Your task to perform on an android device: all mails in gmail Image 0: 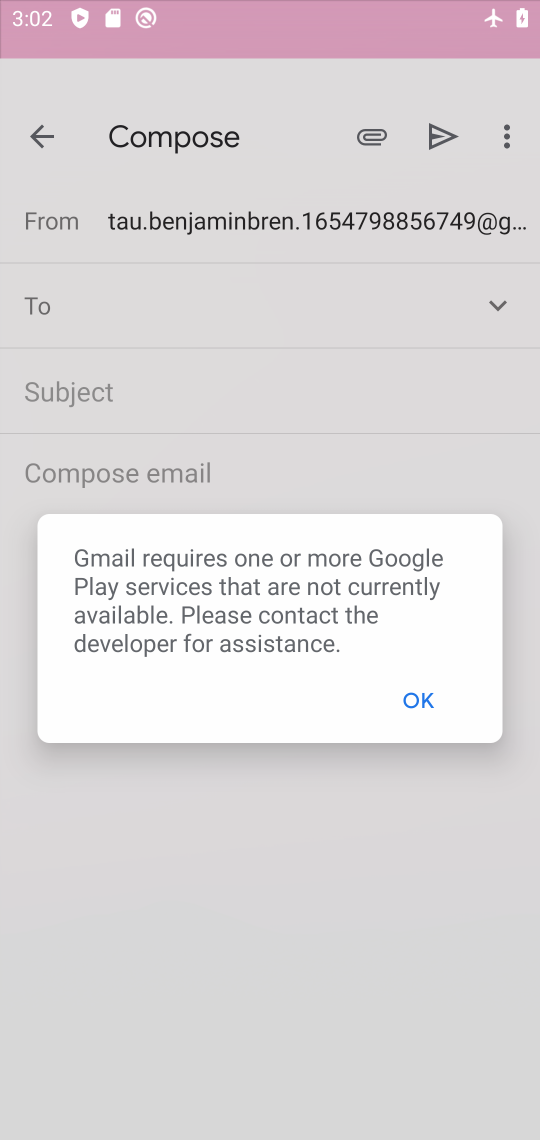
Step 0: press home button
Your task to perform on an android device: all mails in gmail Image 1: 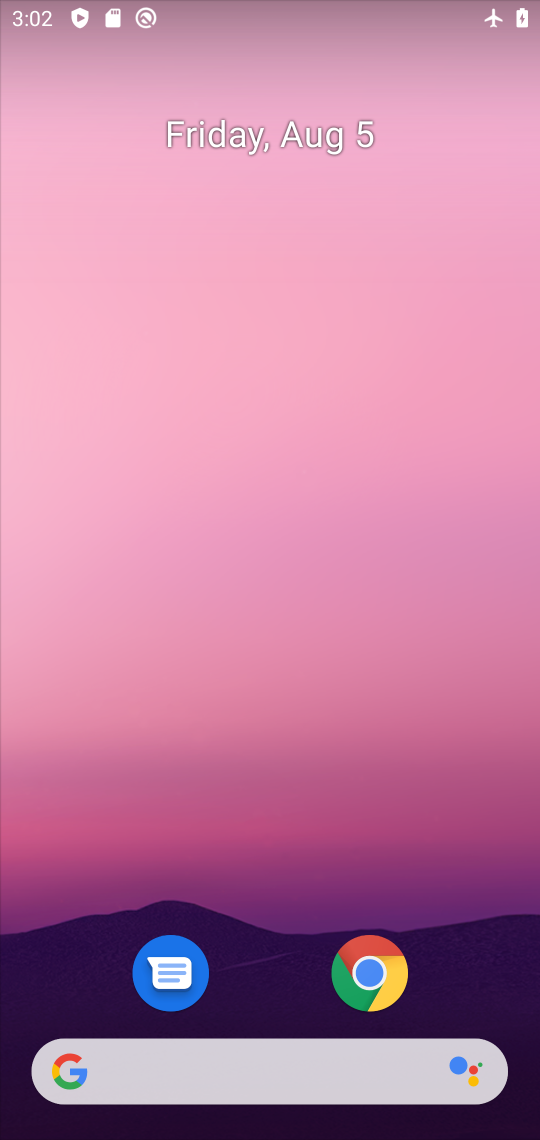
Step 1: drag from (262, 1055) to (120, 122)
Your task to perform on an android device: all mails in gmail Image 2: 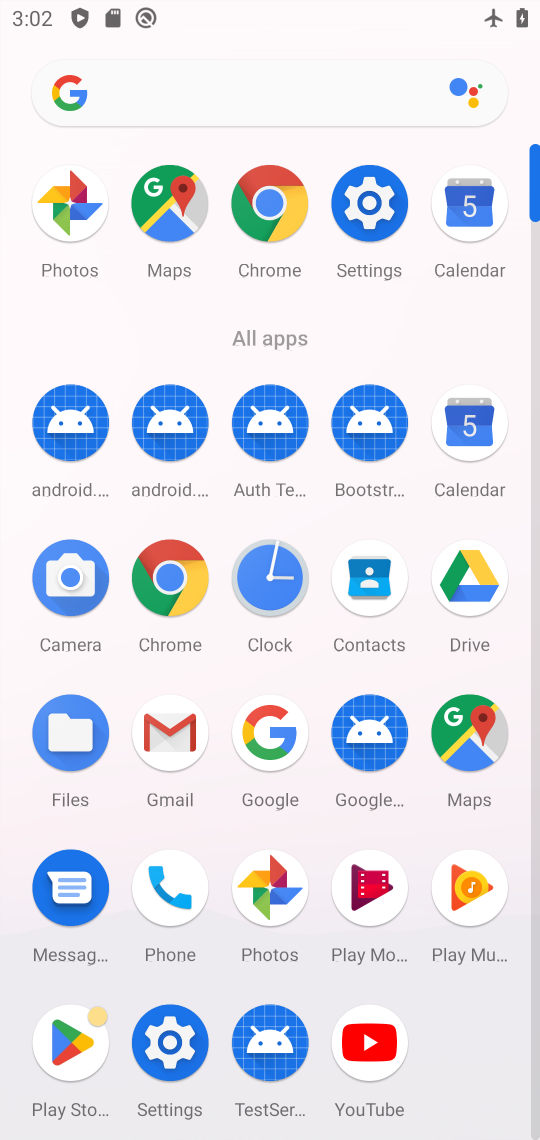
Step 2: click (161, 763)
Your task to perform on an android device: all mails in gmail Image 3: 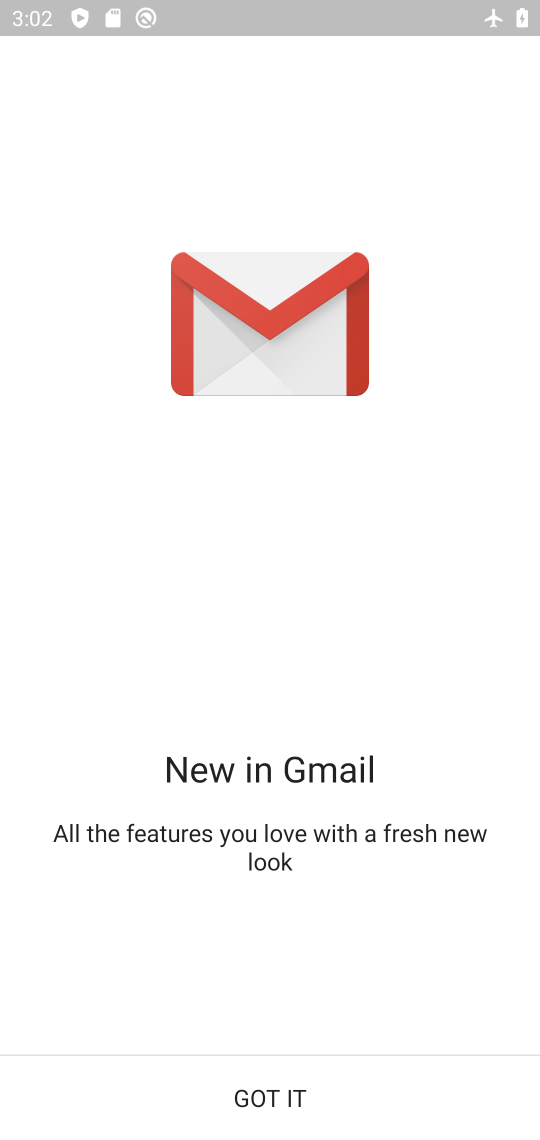
Step 3: click (248, 1101)
Your task to perform on an android device: all mails in gmail Image 4: 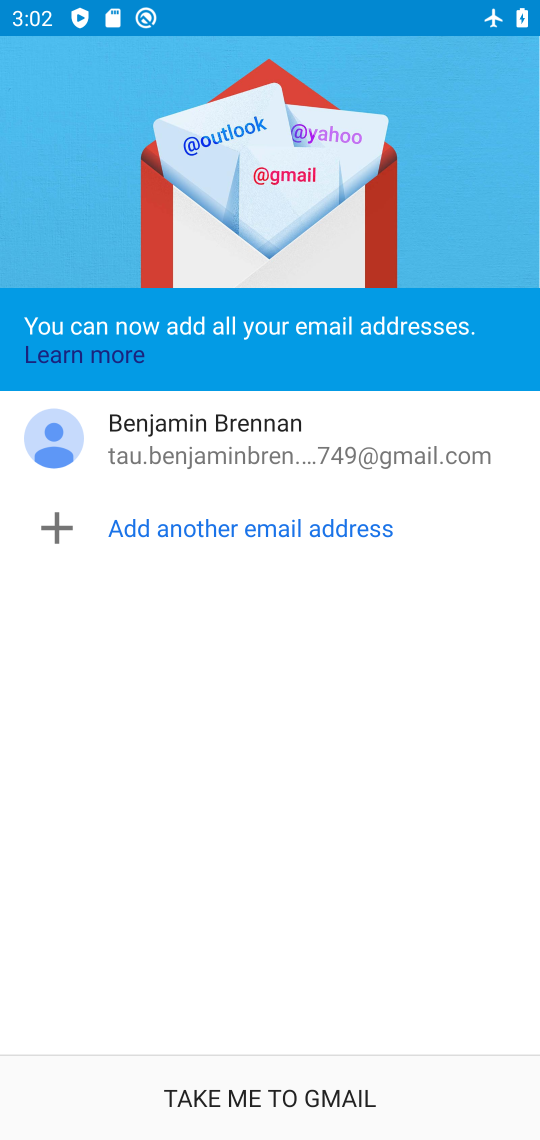
Step 4: click (244, 1095)
Your task to perform on an android device: all mails in gmail Image 5: 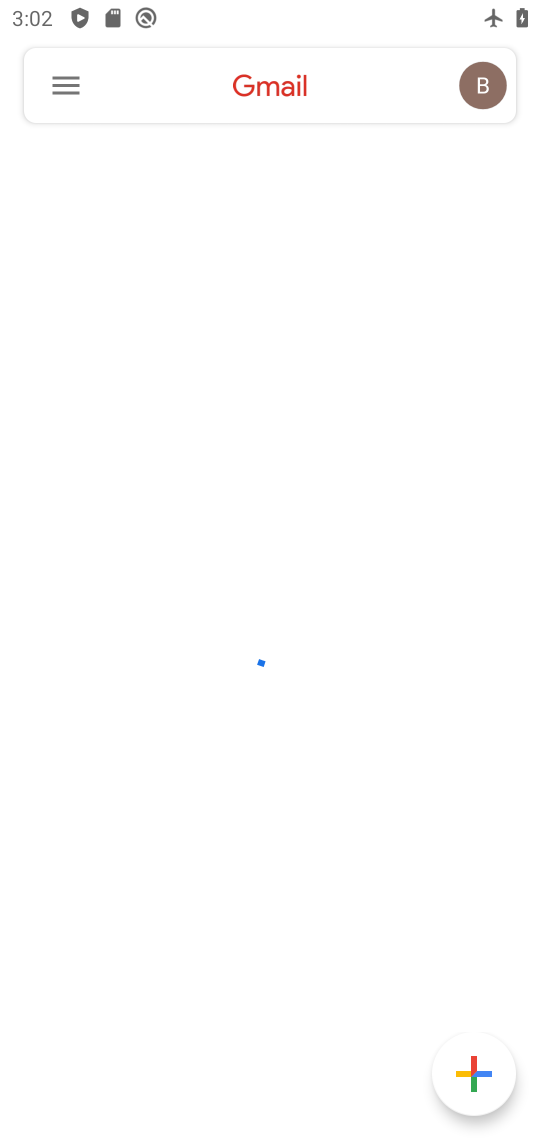
Step 5: click (57, 85)
Your task to perform on an android device: all mails in gmail Image 6: 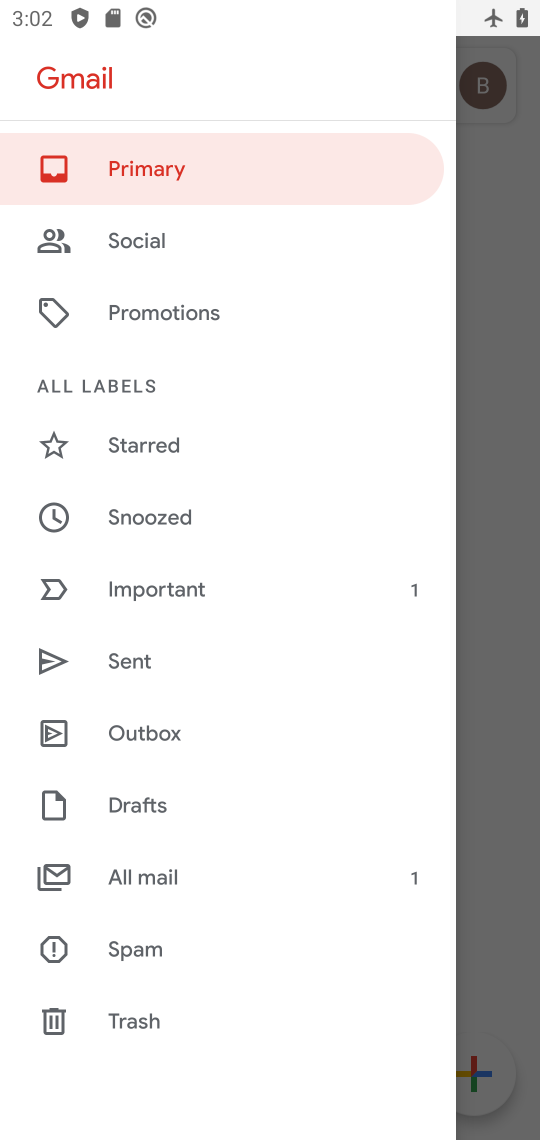
Step 6: click (150, 864)
Your task to perform on an android device: all mails in gmail Image 7: 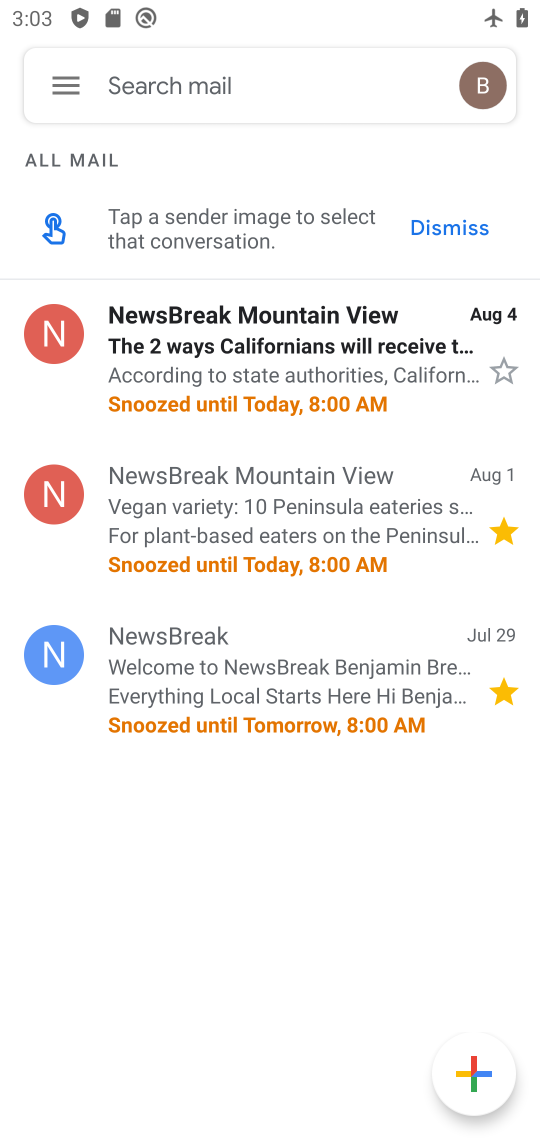
Step 7: task complete